Your task to perform on an android device: Open my contact list Image 0: 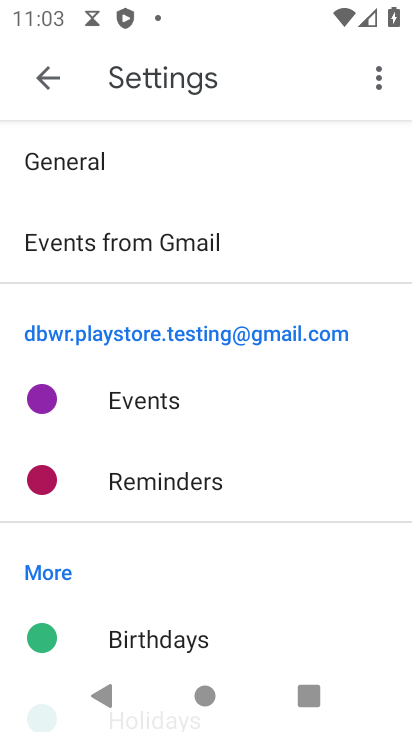
Step 0: press home button
Your task to perform on an android device: Open my contact list Image 1: 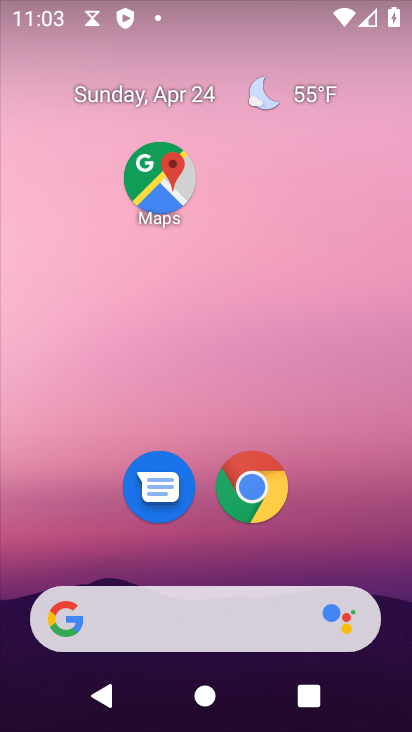
Step 1: drag from (77, 648) to (343, 214)
Your task to perform on an android device: Open my contact list Image 2: 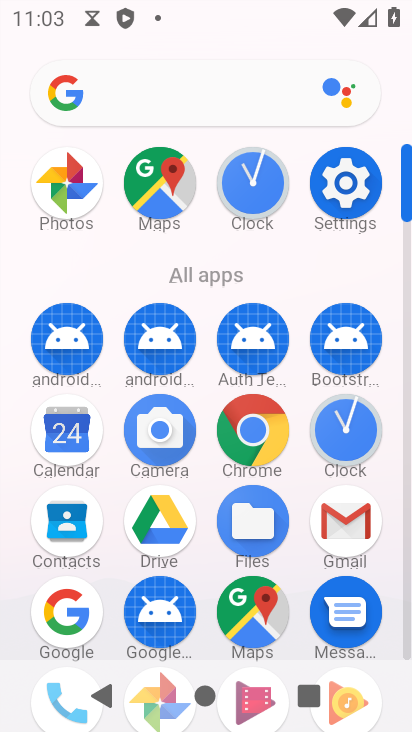
Step 2: drag from (95, 606) to (228, 319)
Your task to perform on an android device: Open my contact list Image 3: 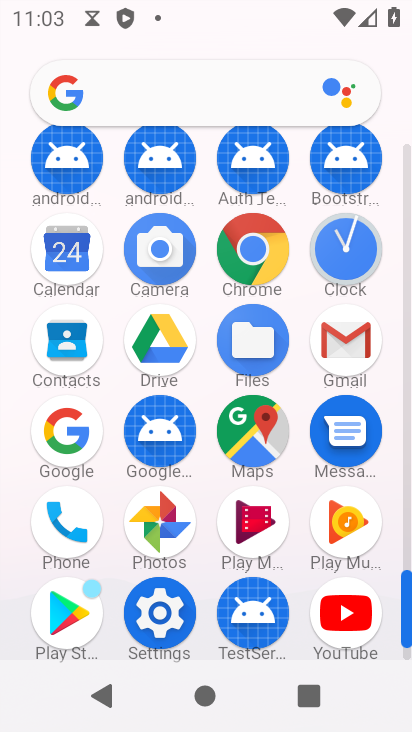
Step 3: click (80, 511)
Your task to perform on an android device: Open my contact list Image 4: 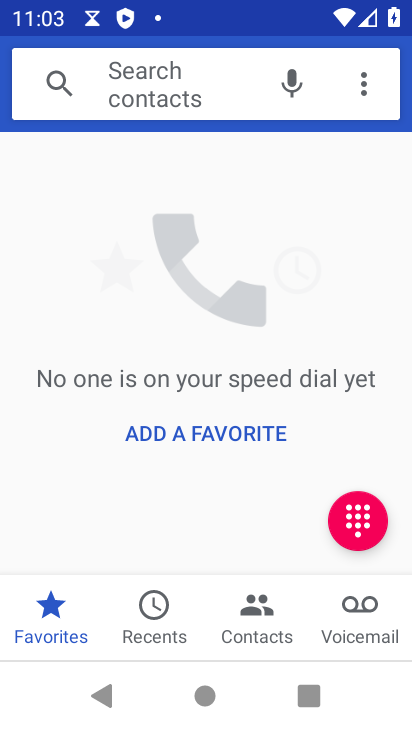
Step 4: click (257, 617)
Your task to perform on an android device: Open my contact list Image 5: 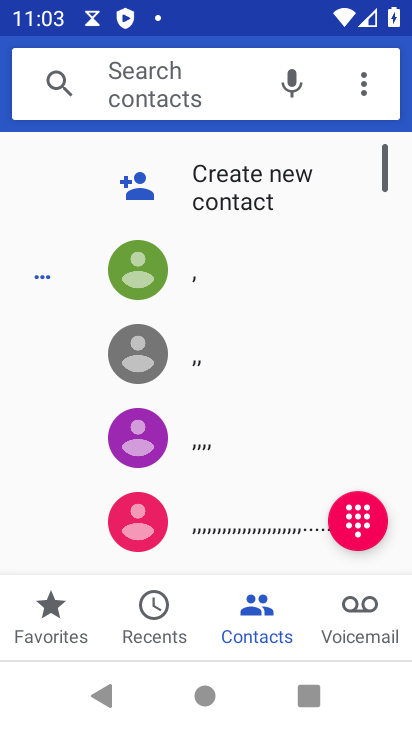
Step 5: task complete